Your task to perform on an android device: turn on data saver in the chrome app Image 0: 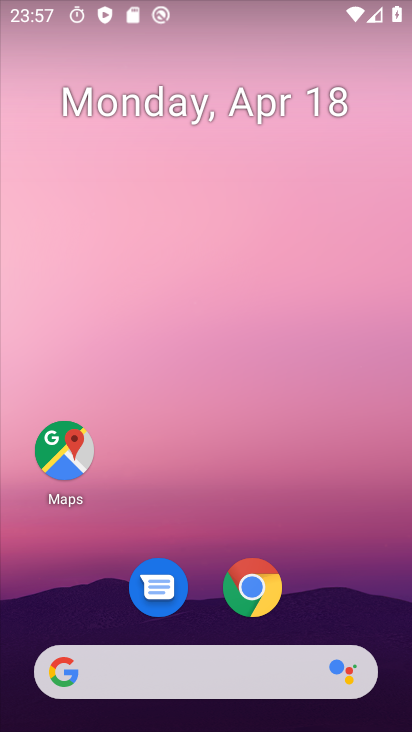
Step 0: drag from (352, 583) to (355, 134)
Your task to perform on an android device: turn on data saver in the chrome app Image 1: 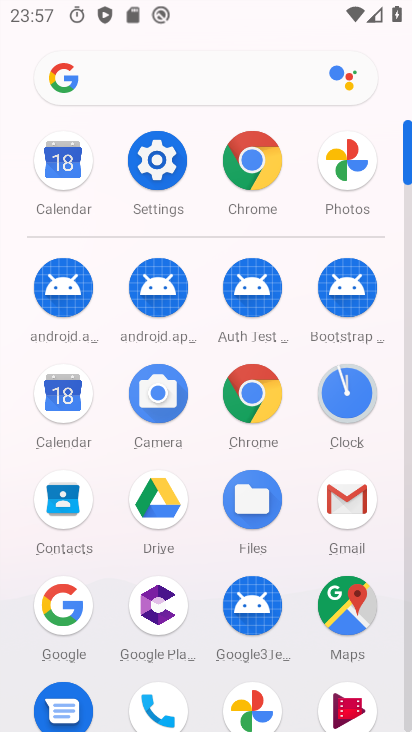
Step 1: click (257, 396)
Your task to perform on an android device: turn on data saver in the chrome app Image 2: 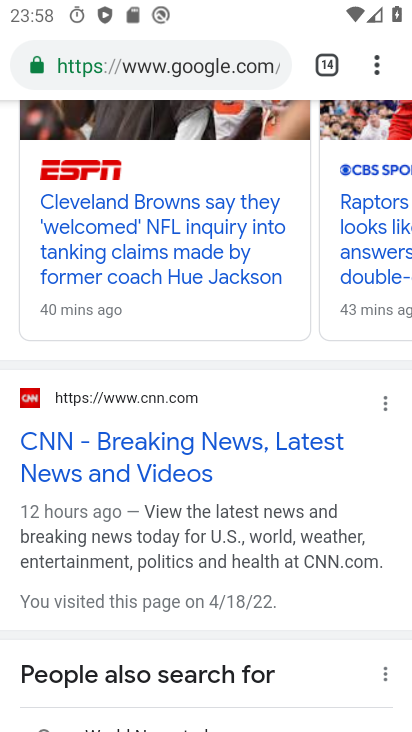
Step 2: click (383, 64)
Your task to perform on an android device: turn on data saver in the chrome app Image 3: 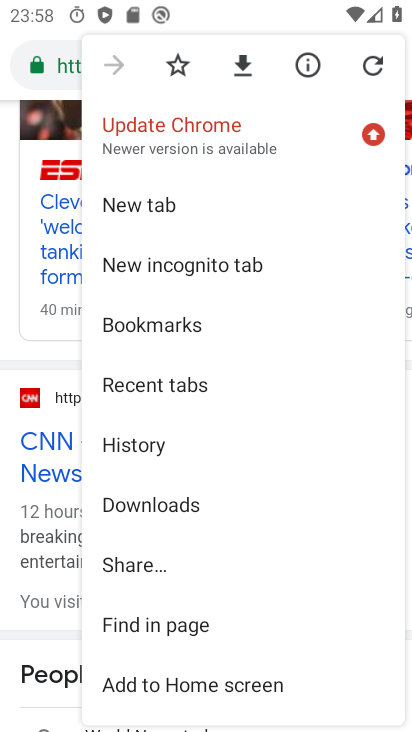
Step 3: drag from (223, 601) to (263, 293)
Your task to perform on an android device: turn on data saver in the chrome app Image 4: 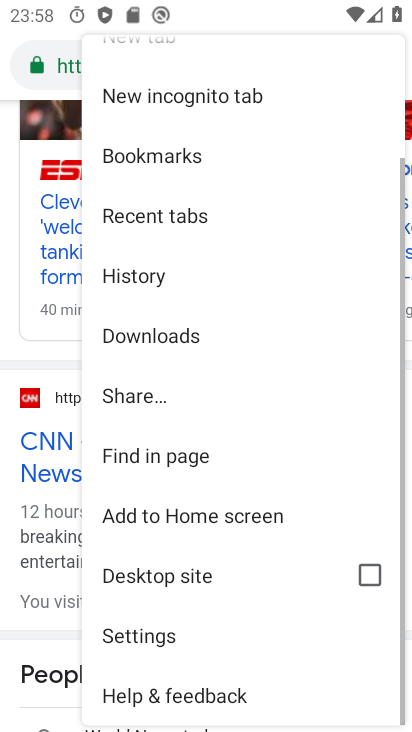
Step 4: click (157, 633)
Your task to perform on an android device: turn on data saver in the chrome app Image 5: 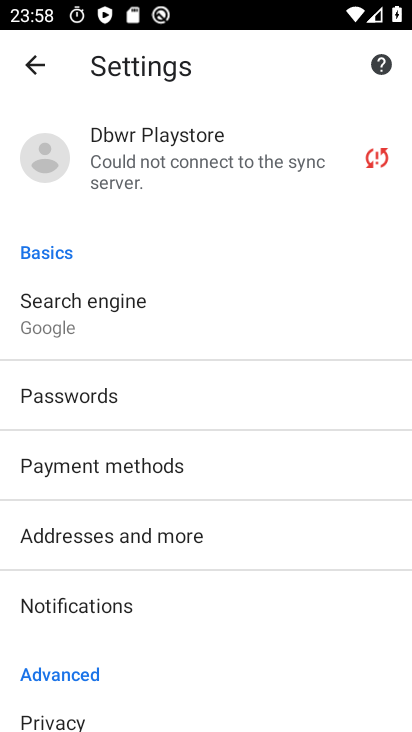
Step 5: drag from (245, 632) to (284, 298)
Your task to perform on an android device: turn on data saver in the chrome app Image 6: 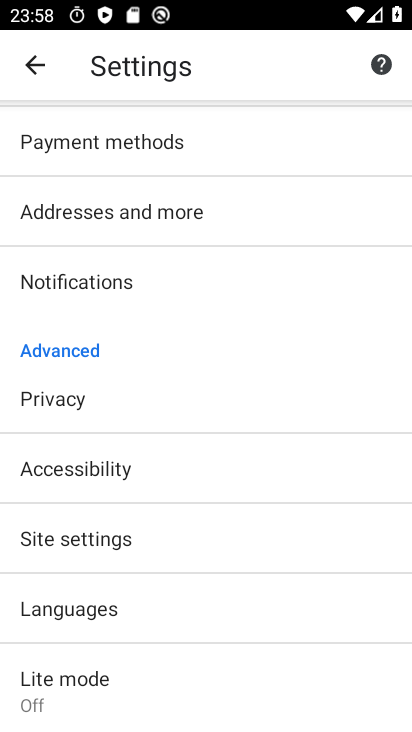
Step 6: click (115, 688)
Your task to perform on an android device: turn on data saver in the chrome app Image 7: 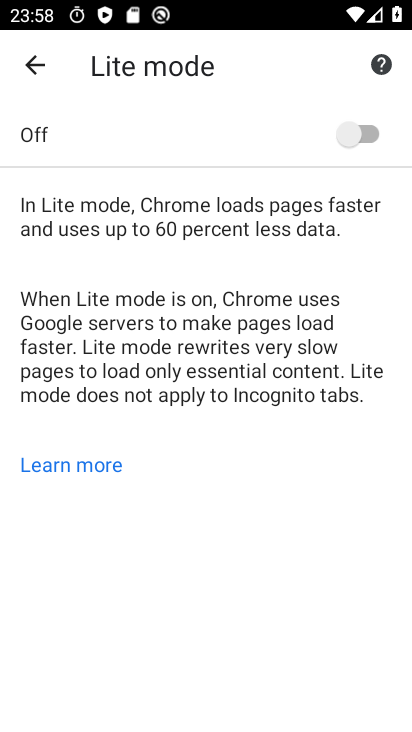
Step 7: click (368, 143)
Your task to perform on an android device: turn on data saver in the chrome app Image 8: 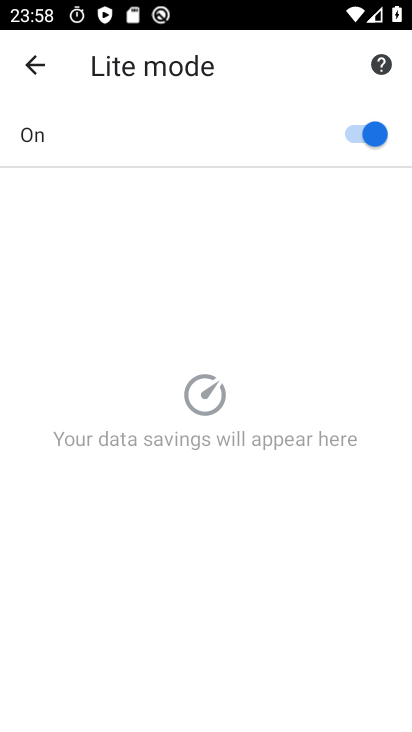
Step 8: task complete